Your task to perform on an android device: Open calendar and show me the third week of next month Image 0: 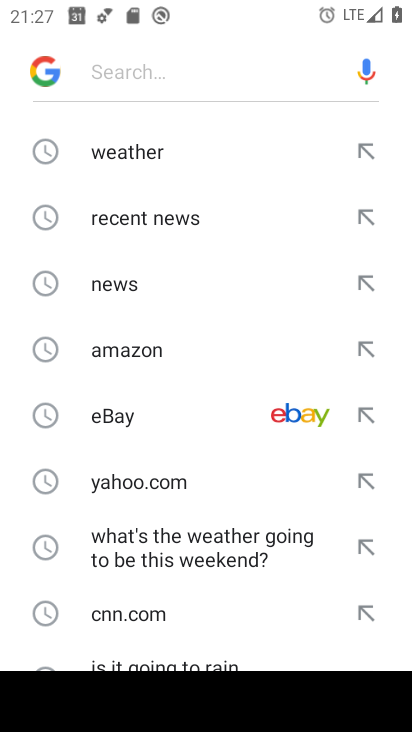
Step 0: press home button
Your task to perform on an android device: Open calendar and show me the third week of next month Image 1: 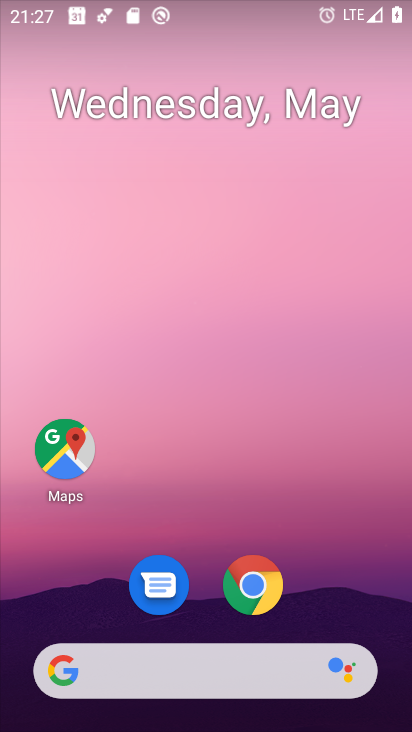
Step 1: drag from (309, 554) to (287, 51)
Your task to perform on an android device: Open calendar and show me the third week of next month Image 2: 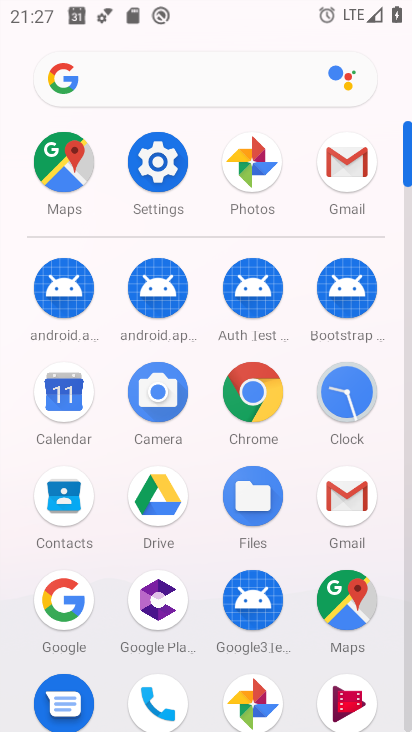
Step 2: click (63, 389)
Your task to perform on an android device: Open calendar and show me the third week of next month Image 3: 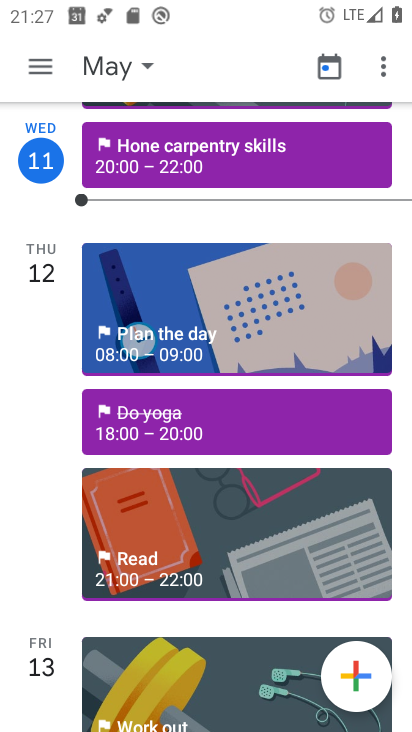
Step 3: click (39, 53)
Your task to perform on an android device: Open calendar and show me the third week of next month Image 4: 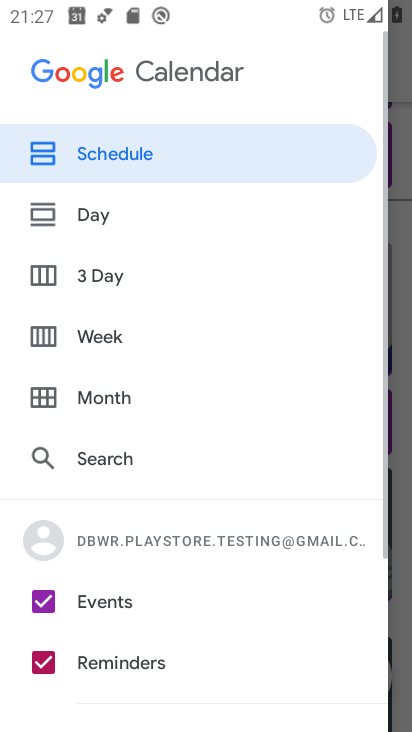
Step 4: click (51, 390)
Your task to perform on an android device: Open calendar and show me the third week of next month Image 5: 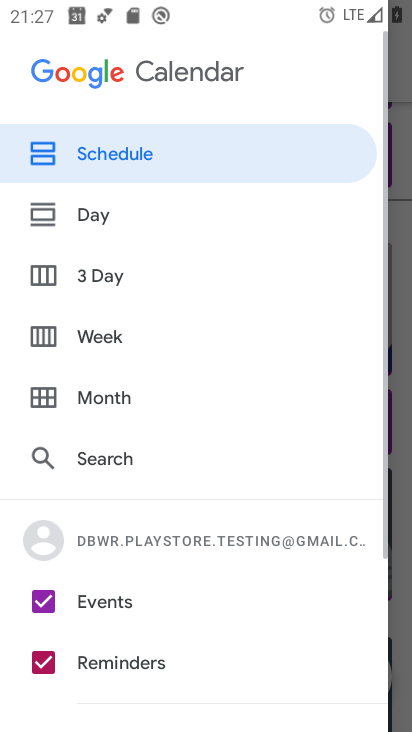
Step 5: click (46, 384)
Your task to perform on an android device: Open calendar and show me the third week of next month Image 6: 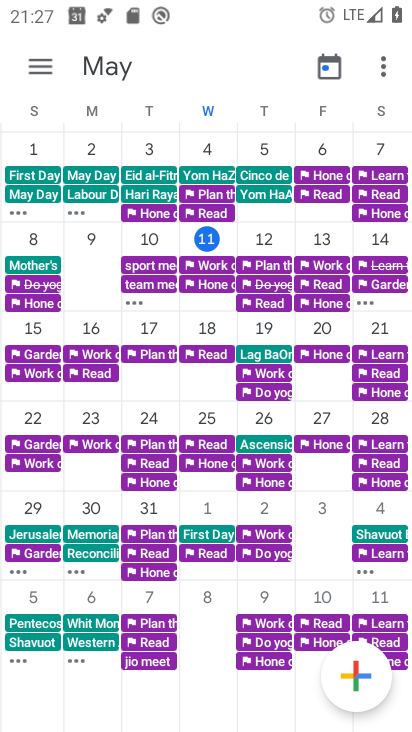
Step 6: drag from (359, 391) to (1, 249)
Your task to perform on an android device: Open calendar and show me the third week of next month Image 7: 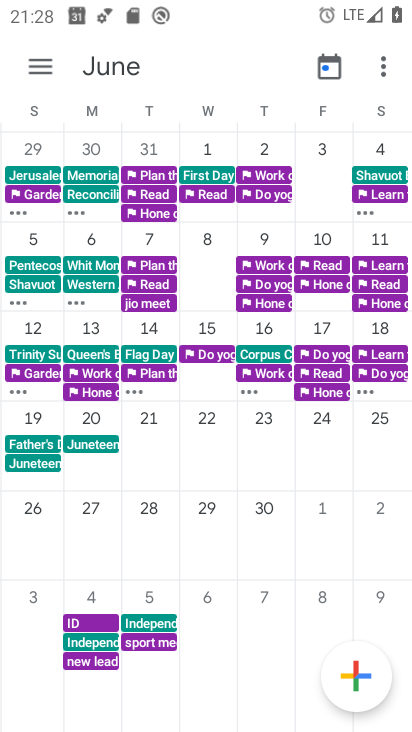
Step 7: click (42, 410)
Your task to perform on an android device: Open calendar and show me the third week of next month Image 8: 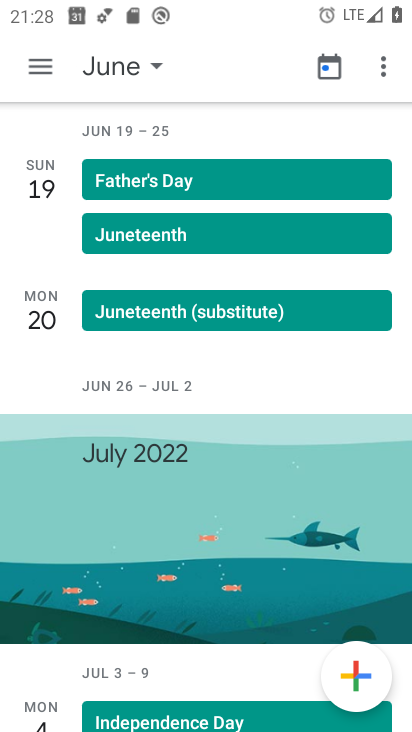
Step 8: click (39, 70)
Your task to perform on an android device: Open calendar and show me the third week of next month Image 9: 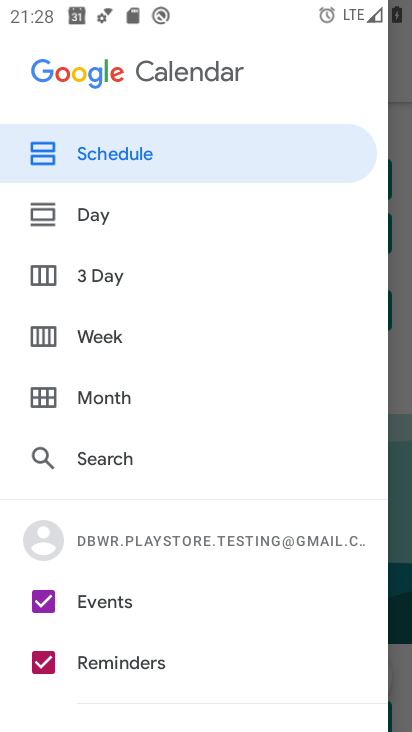
Step 9: click (47, 327)
Your task to perform on an android device: Open calendar and show me the third week of next month Image 10: 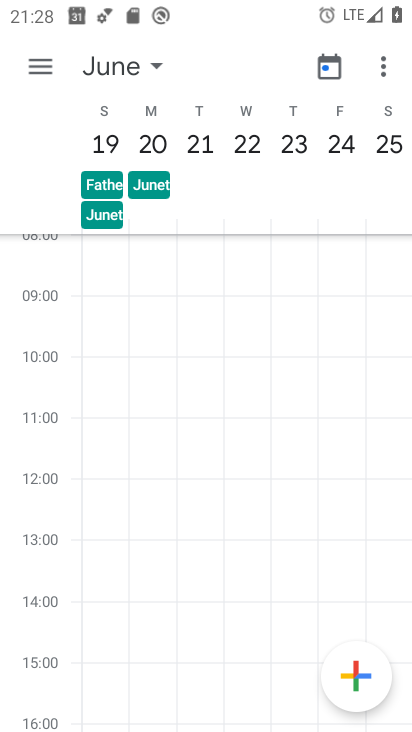
Step 10: task complete